Your task to perform on an android device: set default search engine in the chrome app Image 0: 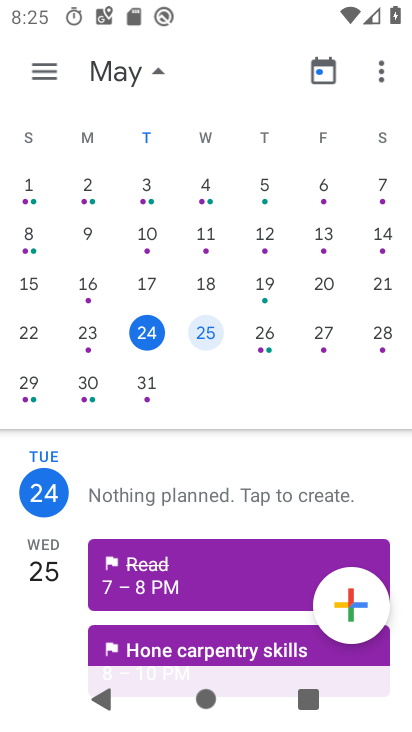
Step 0: press home button
Your task to perform on an android device: set default search engine in the chrome app Image 1: 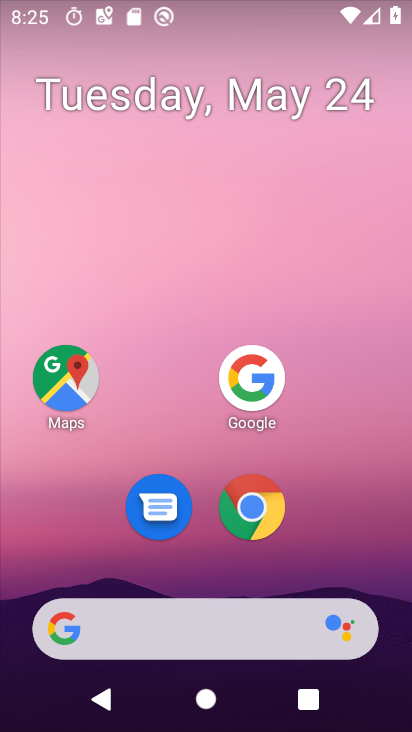
Step 1: click (264, 506)
Your task to perform on an android device: set default search engine in the chrome app Image 2: 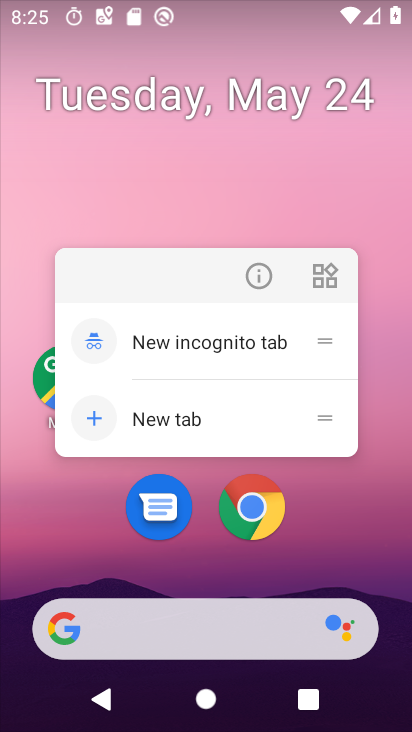
Step 2: click (248, 523)
Your task to perform on an android device: set default search engine in the chrome app Image 3: 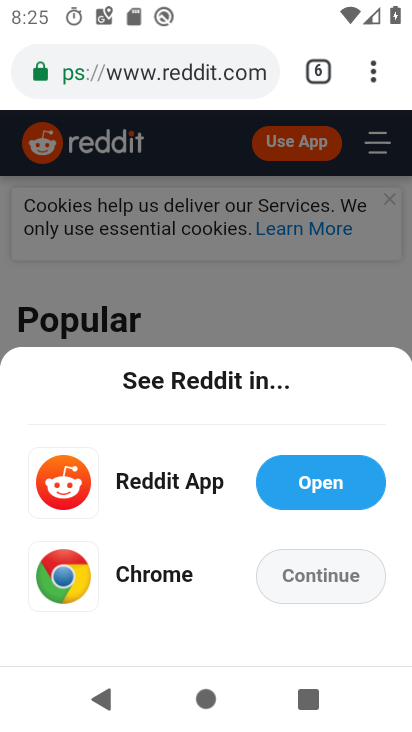
Step 3: drag from (369, 78) to (211, 495)
Your task to perform on an android device: set default search engine in the chrome app Image 4: 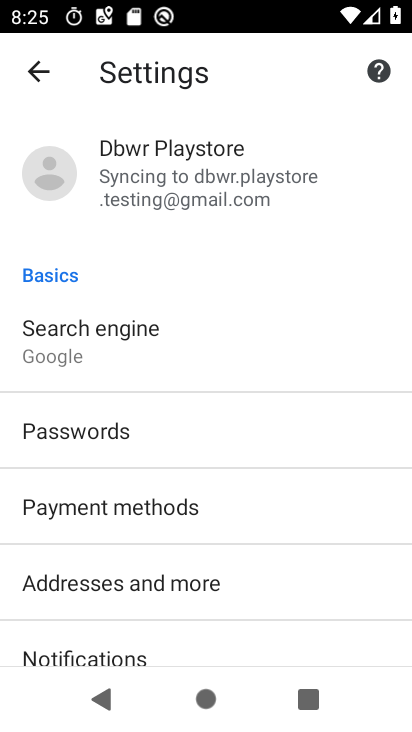
Step 4: click (76, 334)
Your task to perform on an android device: set default search engine in the chrome app Image 5: 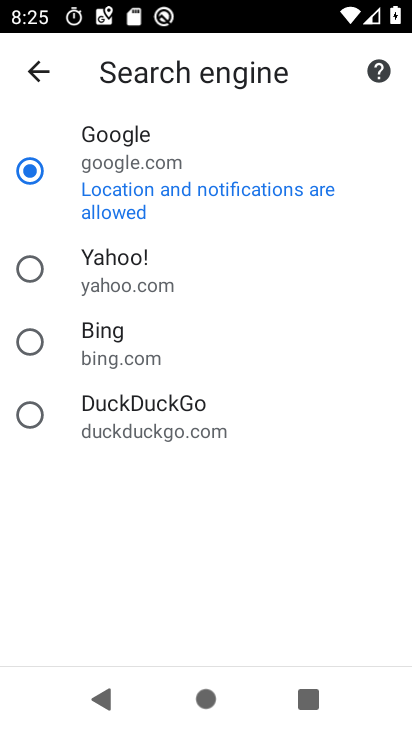
Step 5: click (26, 263)
Your task to perform on an android device: set default search engine in the chrome app Image 6: 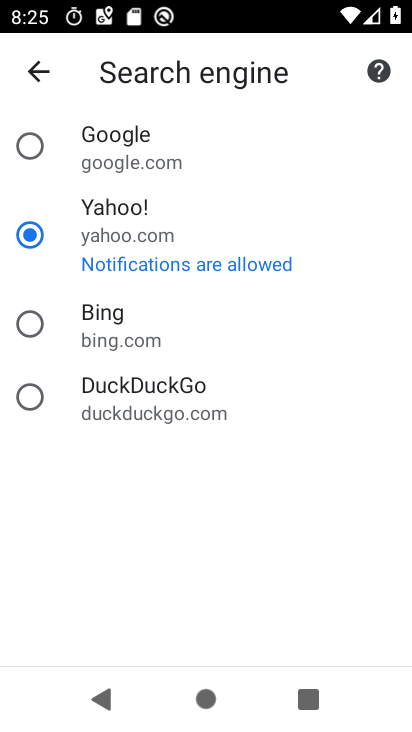
Step 6: task complete